Your task to perform on an android device: Go to calendar. Show me events next week Image 0: 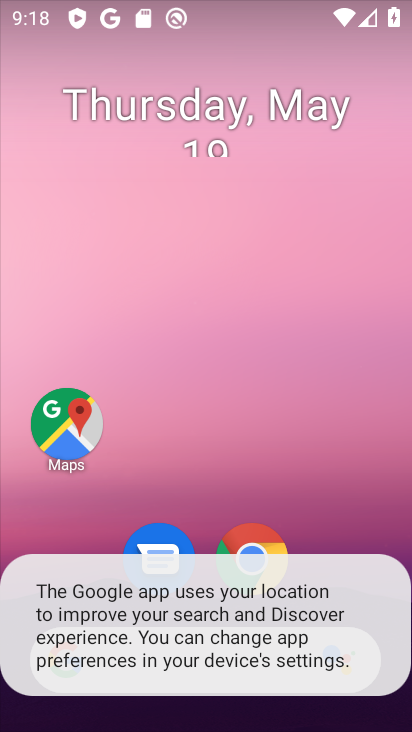
Step 0: drag from (330, 514) to (235, 93)
Your task to perform on an android device: Go to calendar. Show me events next week Image 1: 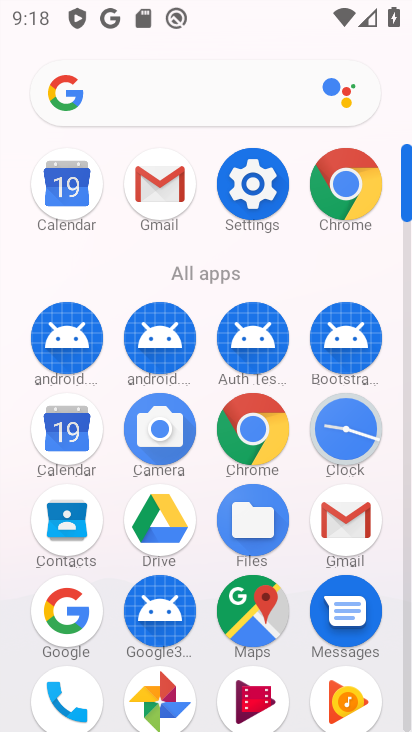
Step 1: click (58, 436)
Your task to perform on an android device: Go to calendar. Show me events next week Image 2: 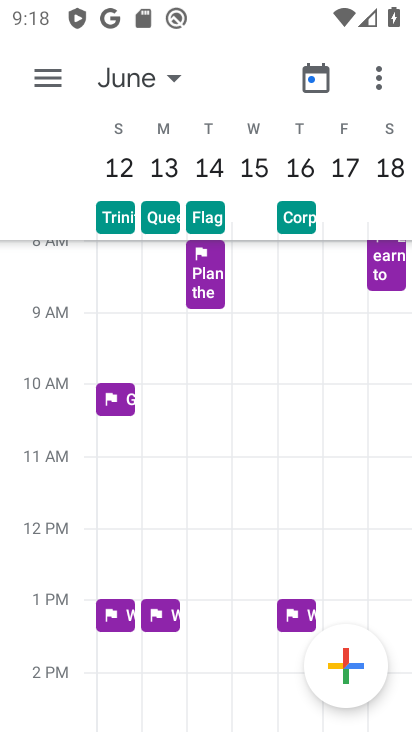
Step 2: click (165, 79)
Your task to perform on an android device: Go to calendar. Show me events next week Image 3: 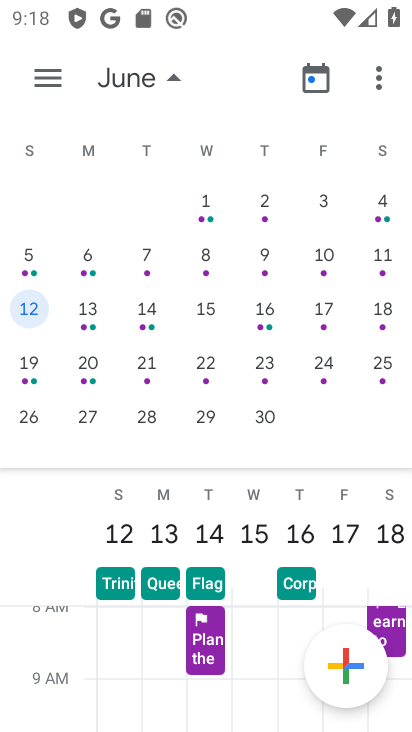
Step 3: drag from (69, 344) to (411, 294)
Your task to perform on an android device: Go to calendar. Show me events next week Image 4: 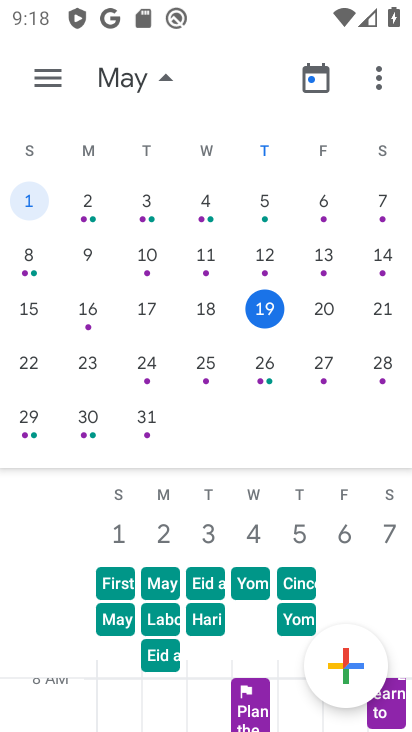
Step 4: click (89, 367)
Your task to perform on an android device: Go to calendar. Show me events next week Image 5: 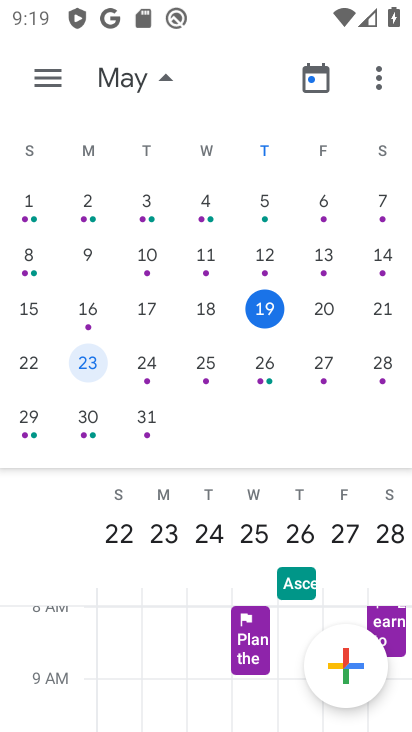
Step 5: task complete